Your task to perform on an android device: delete a single message in the gmail app Image 0: 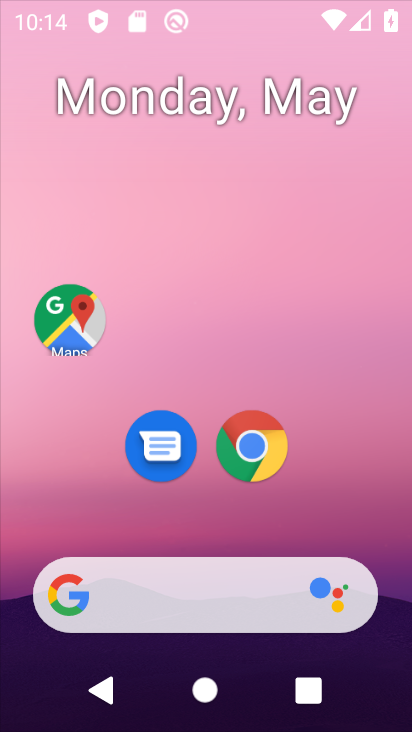
Step 0: click (315, 12)
Your task to perform on an android device: delete a single message in the gmail app Image 1: 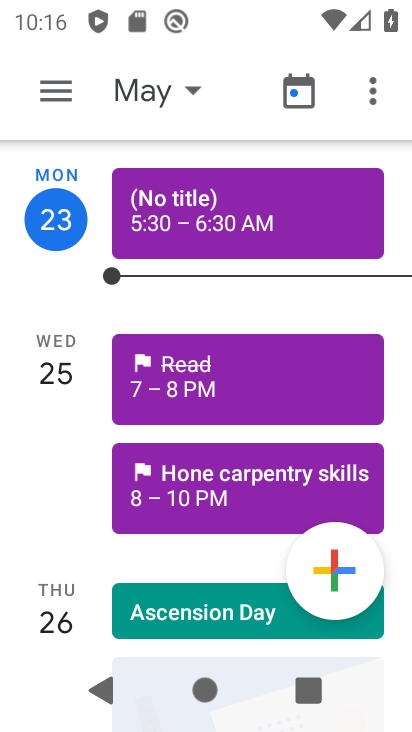
Step 1: press home button
Your task to perform on an android device: delete a single message in the gmail app Image 2: 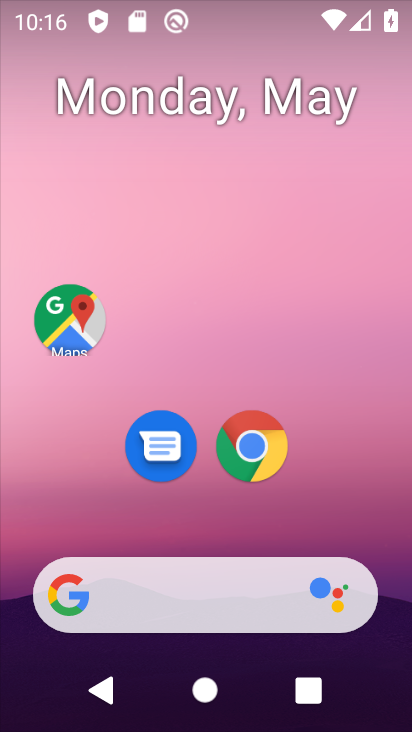
Step 2: drag from (352, 447) to (335, 4)
Your task to perform on an android device: delete a single message in the gmail app Image 3: 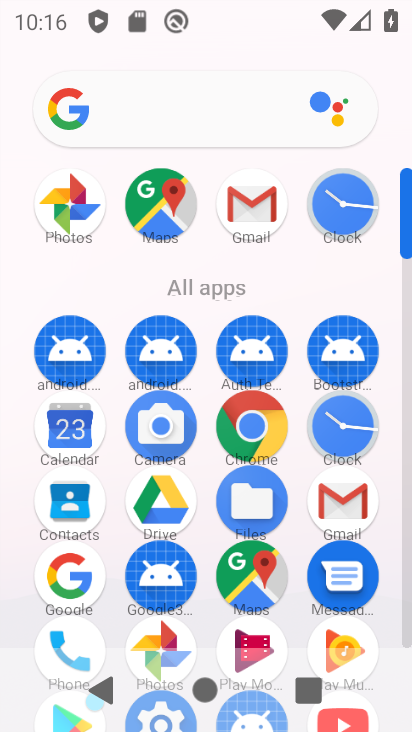
Step 3: click (262, 199)
Your task to perform on an android device: delete a single message in the gmail app Image 4: 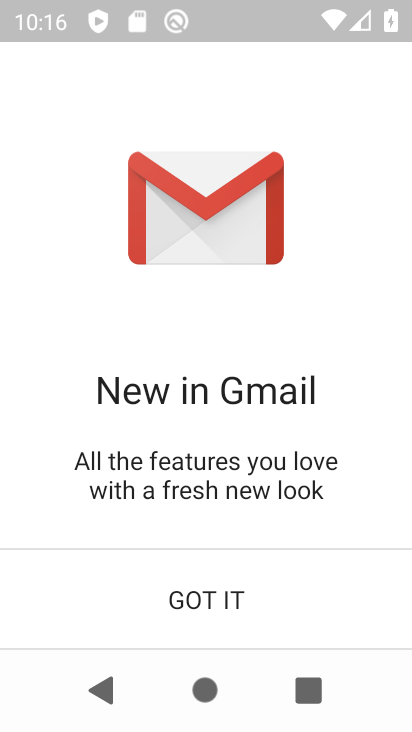
Step 4: click (196, 593)
Your task to perform on an android device: delete a single message in the gmail app Image 5: 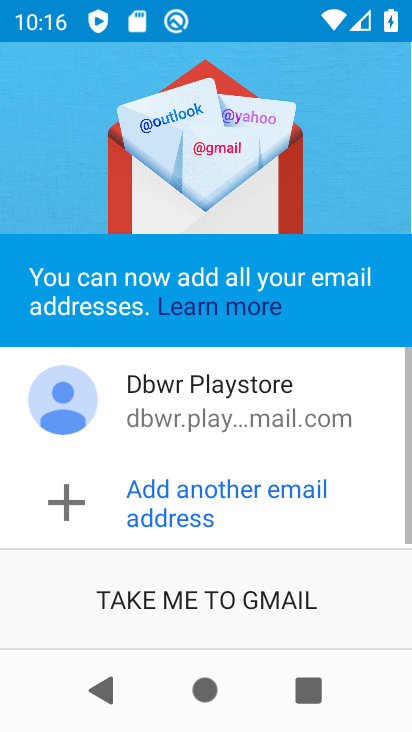
Step 5: click (206, 602)
Your task to perform on an android device: delete a single message in the gmail app Image 6: 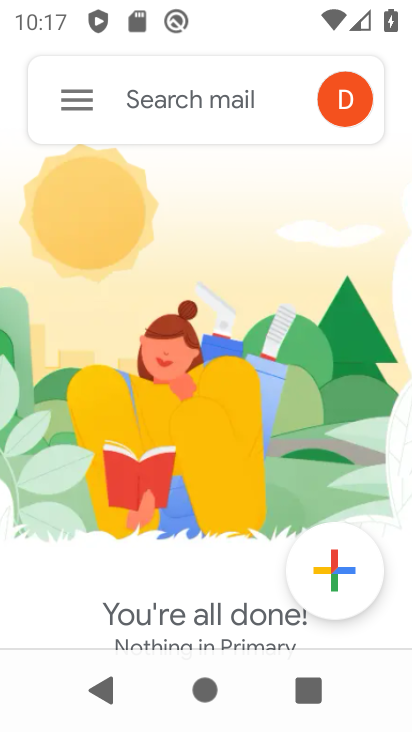
Step 6: click (74, 112)
Your task to perform on an android device: delete a single message in the gmail app Image 7: 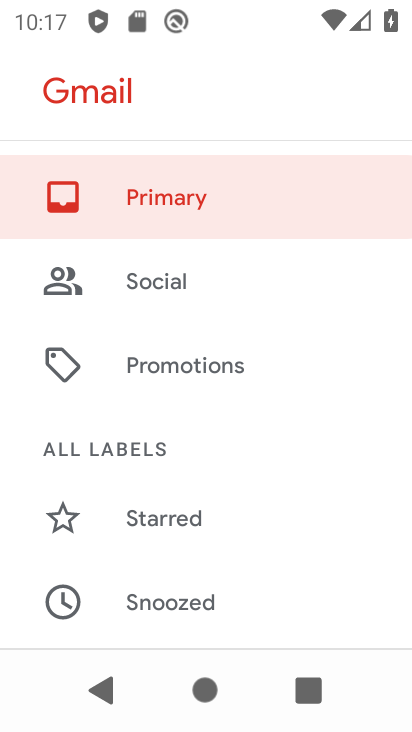
Step 7: drag from (182, 508) to (191, 111)
Your task to perform on an android device: delete a single message in the gmail app Image 8: 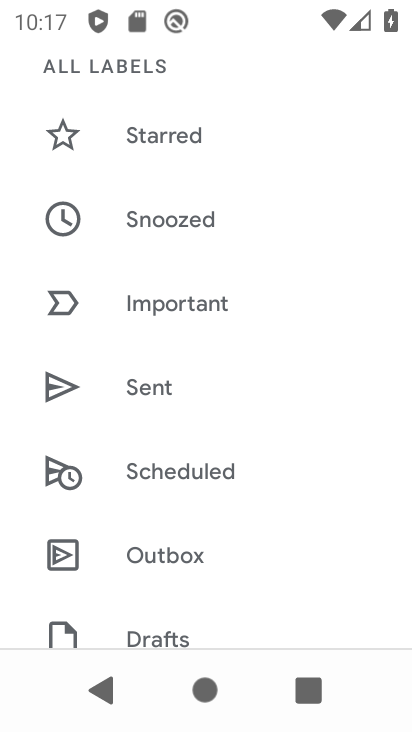
Step 8: drag from (213, 462) to (199, 150)
Your task to perform on an android device: delete a single message in the gmail app Image 9: 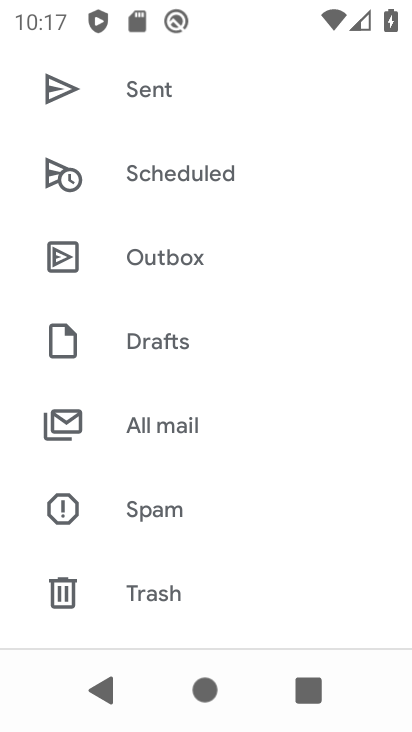
Step 9: click (170, 420)
Your task to perform on an android device: delete a single message in the gmail app Image 10: 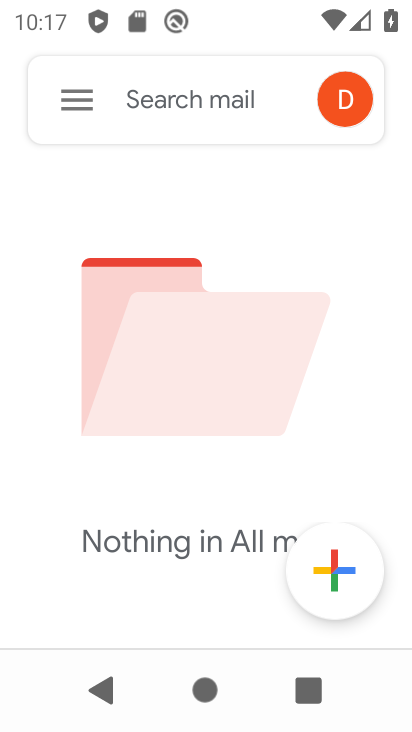
Step 10: task complete